Your task to perform on an android device: Open the calendar and show me this week's events Image 0: 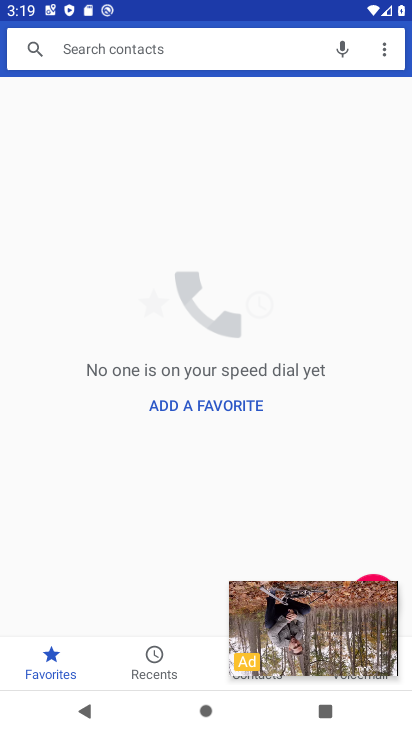
Step 0: press home button
Your task to perform on an android device: Open the calendar and show me this week's events Image 1: 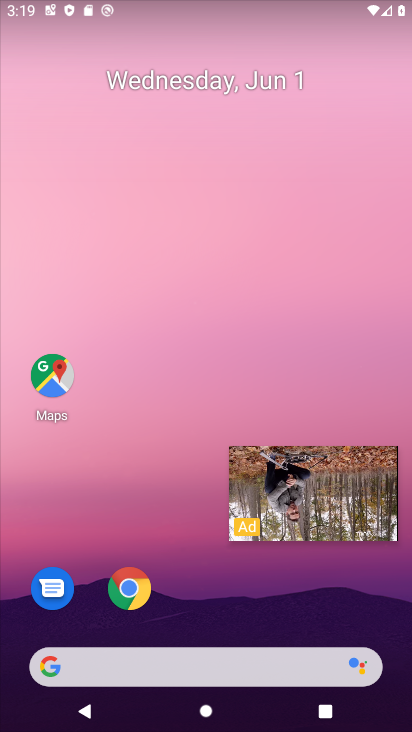
Step 1: drag from (361, 530) to (240, 730)
Your task to perform on an android device: Open the calendar and show me this week's events Image 2: 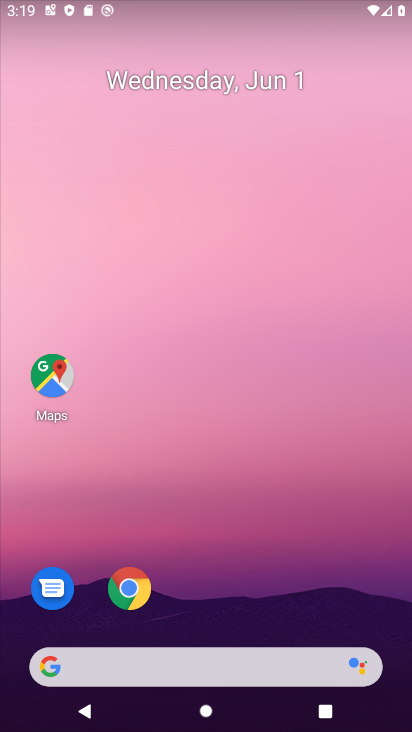
Step 2: drag from (295, 602) to (282, 58)
Your task to perform on an android device: Open the calendar and show me this week's events Image 3: 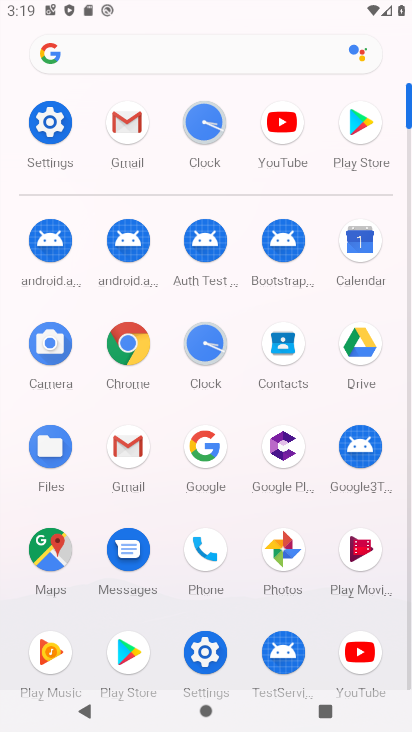
Step 3: click (354, 258)
Your task to perform on an android device: Open the calendar and show me this week's events Image 4: 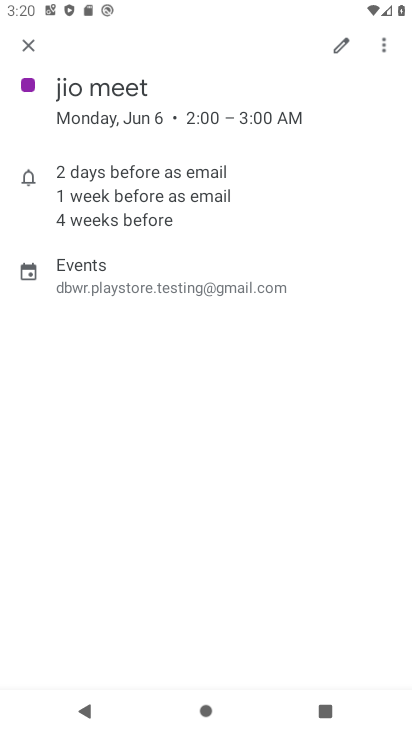
Step 4: click (32, 51)
Your task to perform on an android device: Open the calendar and show me this week's events Image 5: 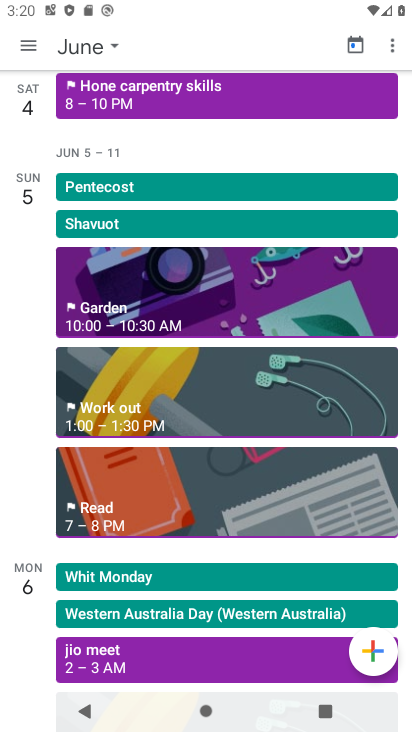
Step 5: click (32, 51)
Your task to perform on an android device: Open the calendar and show me this week's events Image 6: 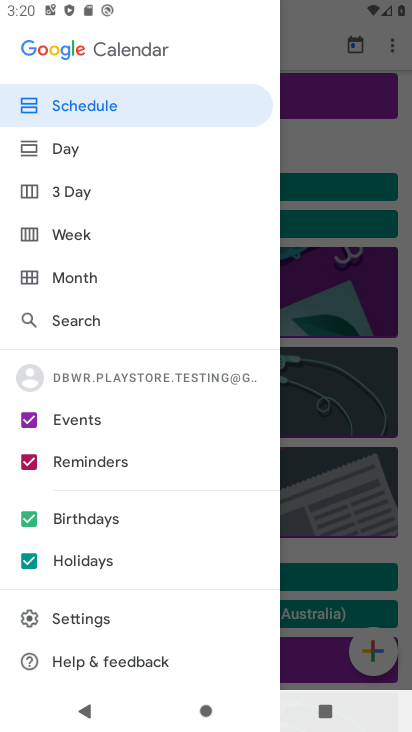
Step 6: click (112, 237)
Your task to perform on an android device: Open the calendar and show me this week's events Image 7: 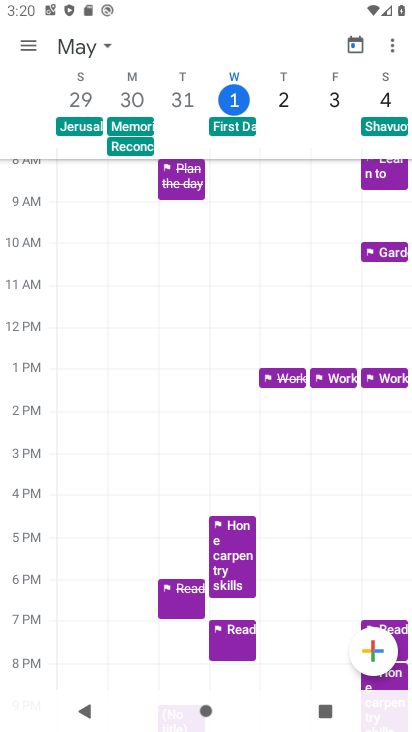
Step 7: task complete